Your task to perform on an android device: show emergency info Image 0: 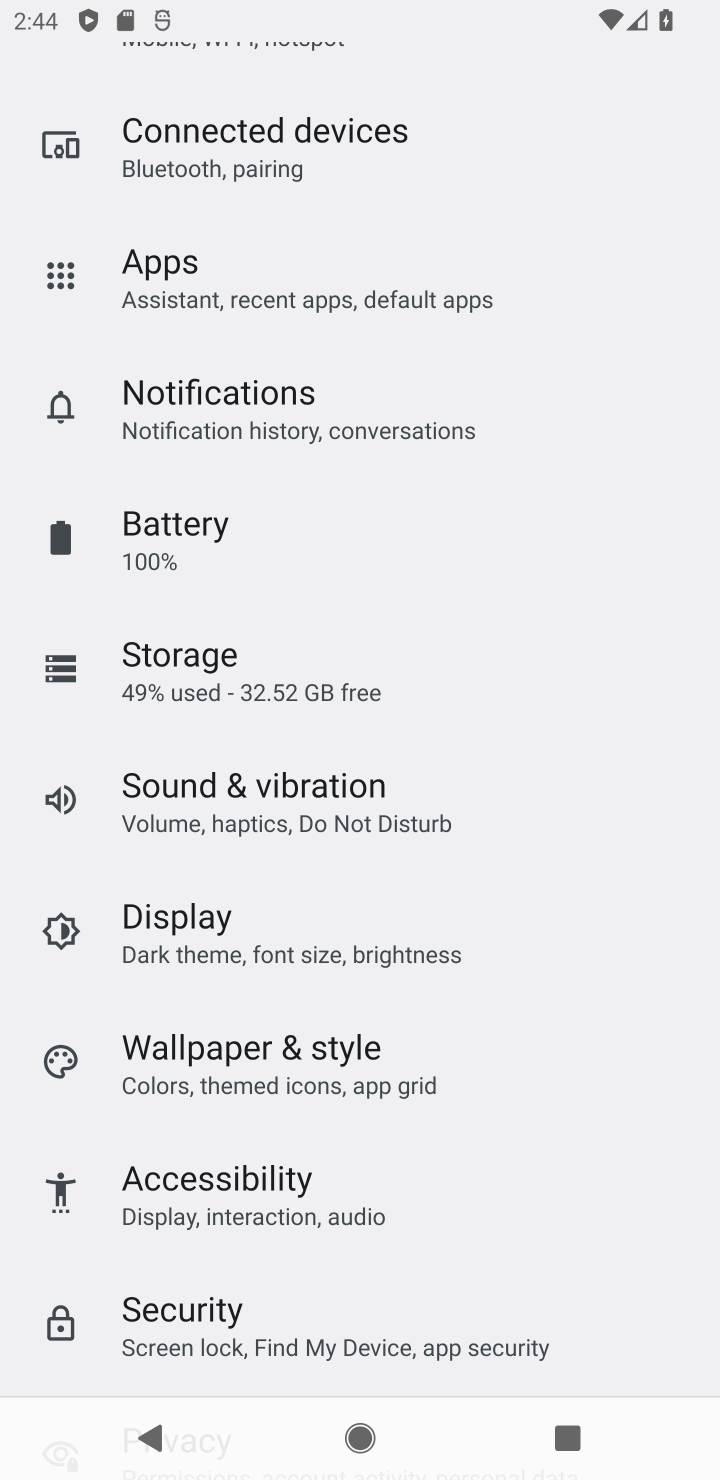
Step 0: drag from (475, 1188) to (595, 234)
Your task to perform on an android device: show emergency info Image 1: 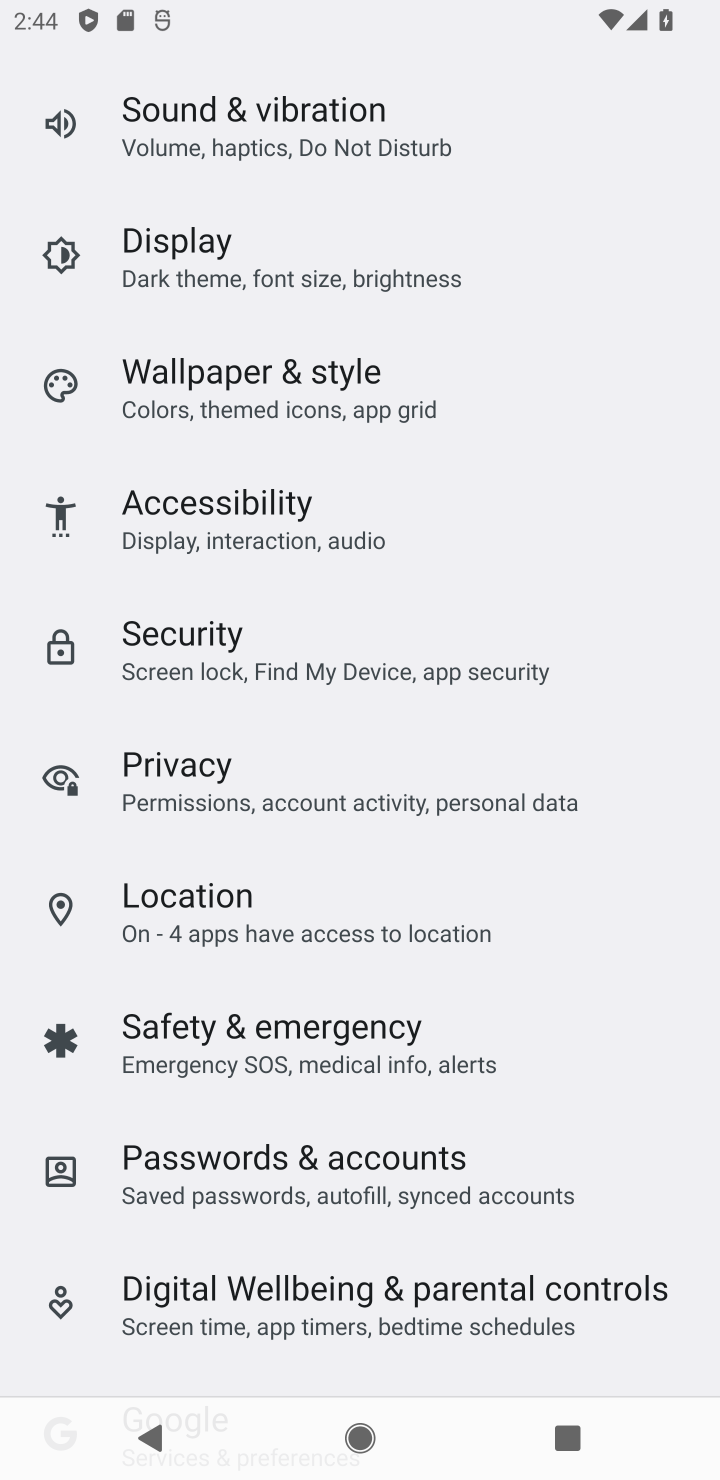
Step 1: click (365, 1041)
Your task to perform on an android device: show emergency info Image 2: 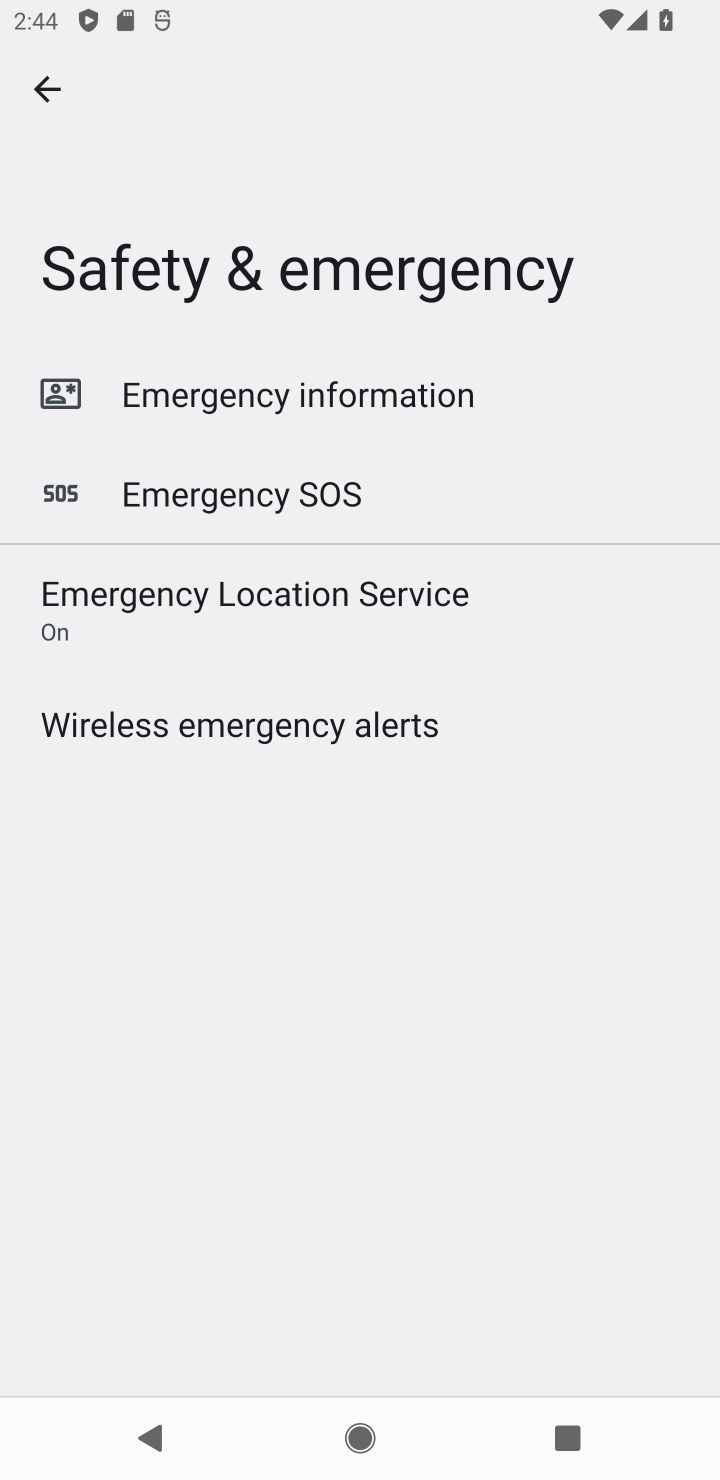
Step 2: click (286, 406)
Your task to perform on an android device: show emergency info Image 3: 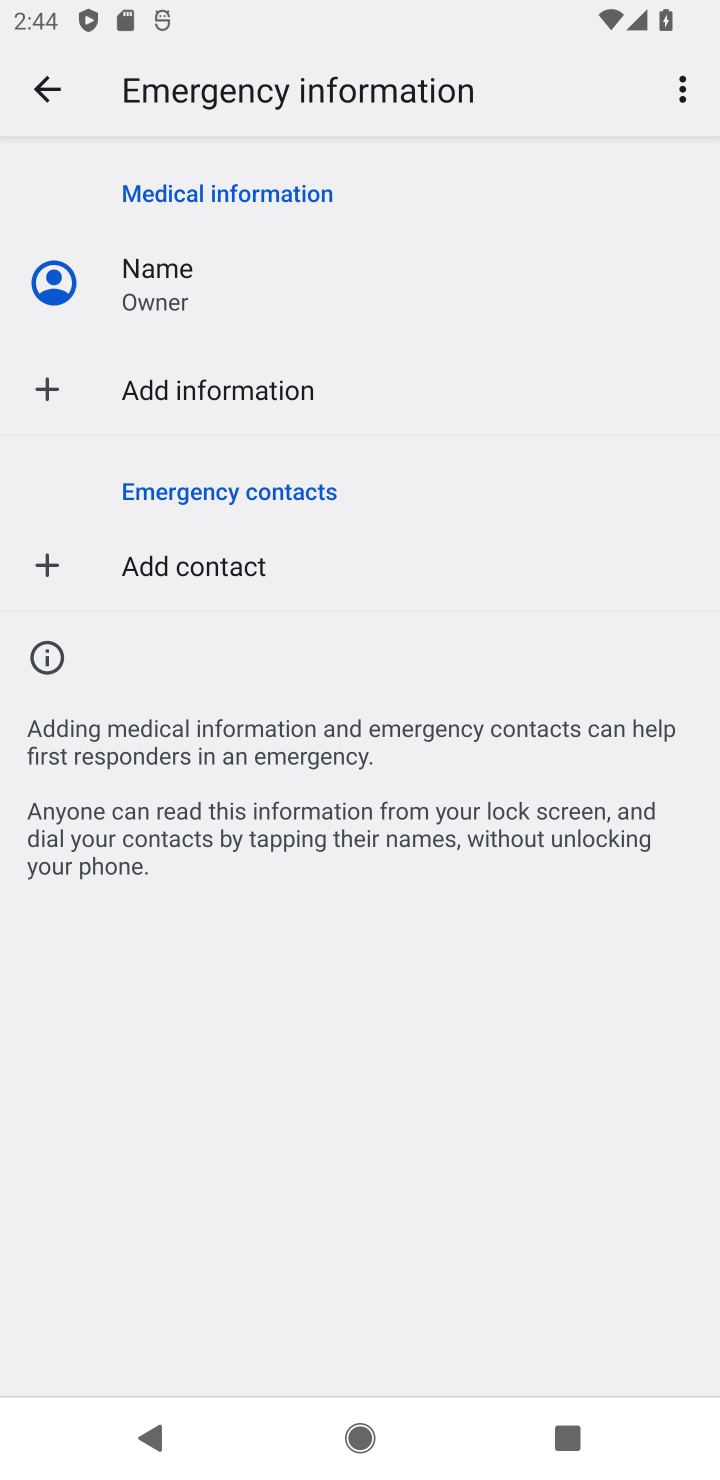
Step 3: task complete